Your task to perform on an android device: Open Yahoo.com Image 0: 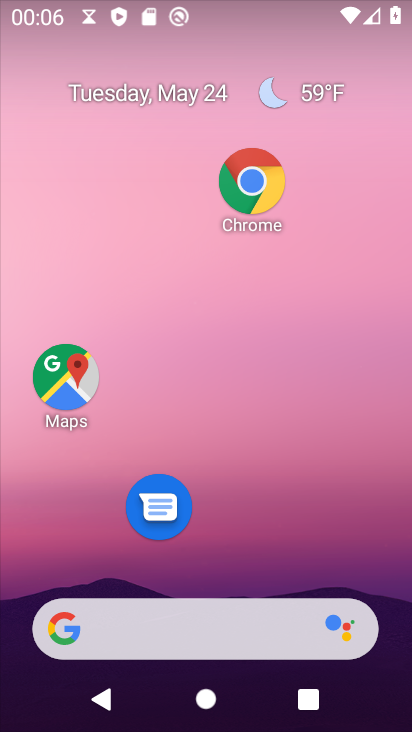
Step 0: click (246, 181)
Your task to perform on an android device: Open Yahoo.com Image 1: 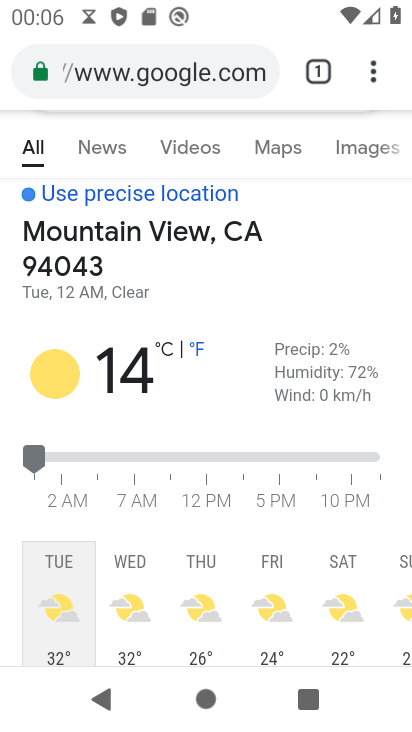
Step 1: click (373, 59)
Your task to perform on an android device: Open Yahoo.com Image 2: 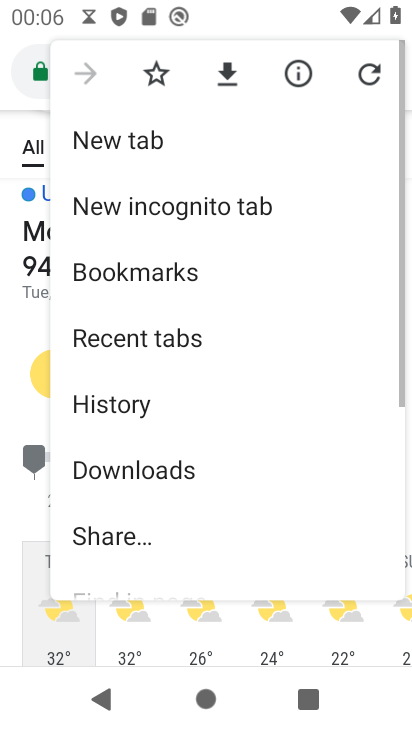
Step 2: click (153, 144)
Your task to perform on an android device: Open Yahoo.com Image 3: 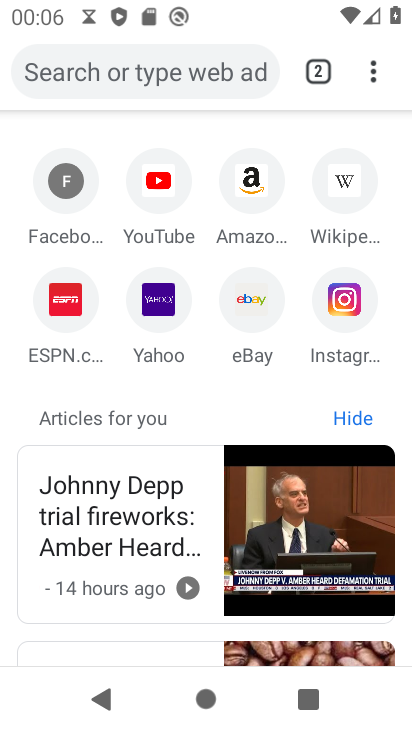
Step 3: click (137, 309)
Your task to perform on an android device: Open Yahoo.com Image 4: 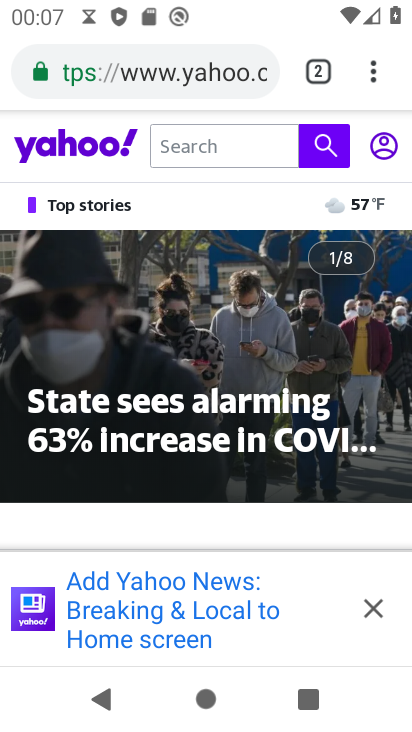
Step 4: task complete